Your task to perform on an android device: turn off improve location accuracy Image 0: 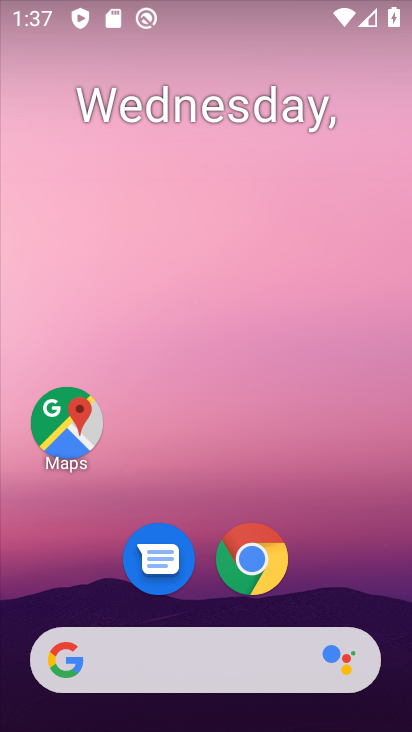
Step 0: drag from (362, 443) to (367, 0)
Your task to perform on an android device: turn off improve location accuracy Image 1: 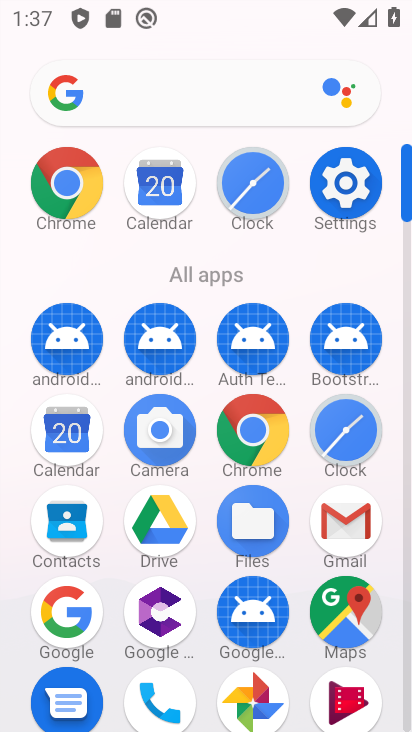
Step 1: click (318, 625)
Your task to perform on an android device: turn off improve location accuracy Image 2: 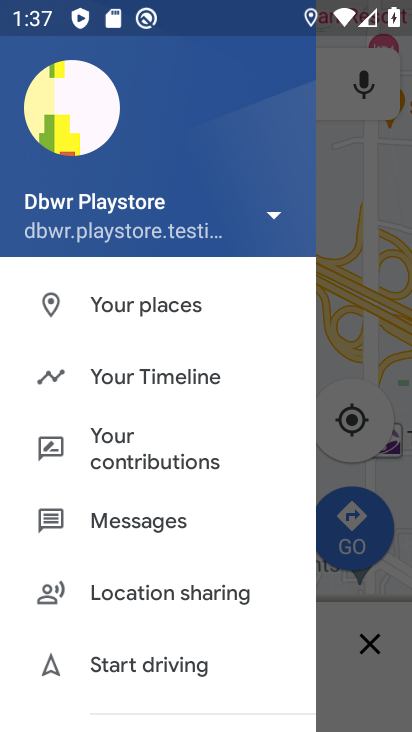
Step 2: press home button
Your task to perform on an android device: turn off improve location accuracy Image 3: 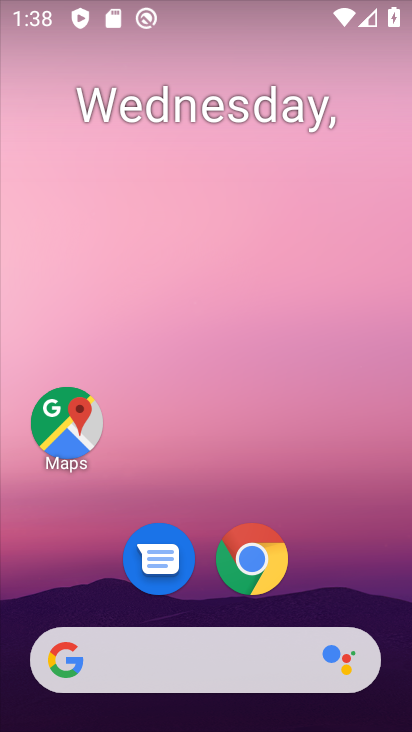
Step 3: drag from (371, 171) to (327, 5)
Your task to perform on an android device: turn off improve location accuracy Image 4: 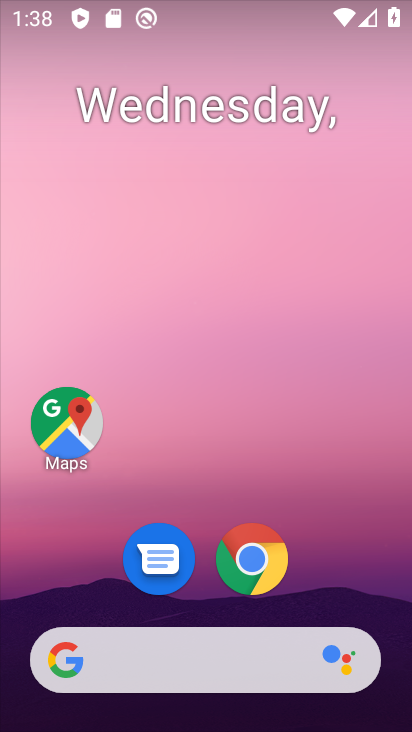
Step 4: drag from (318, 559) to (316, 32)
Your task to perform on an android device: turn off improve location accuracy Image 5: 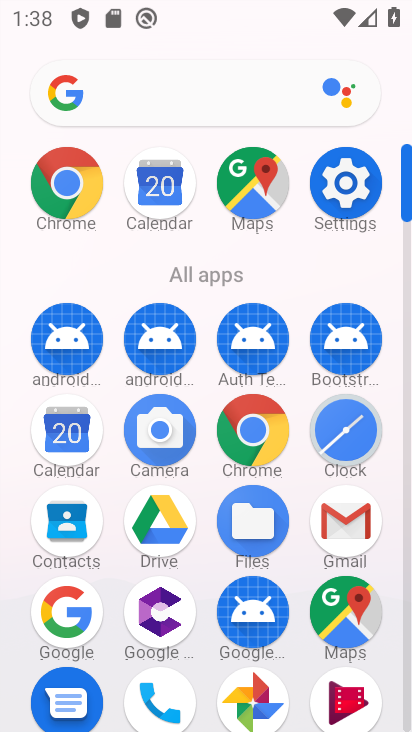
Step 5: click (346, 175)
Your task to perform on an android device: turn off improve location accuracy Image 6: 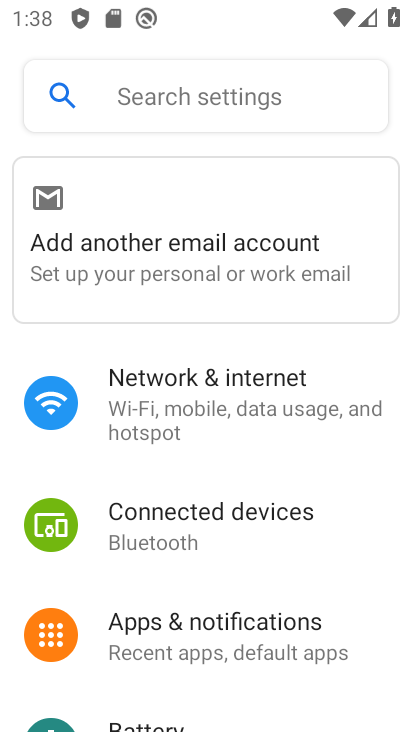
Step 6: drag from (176, 517) to (182, 211)
Your task to perform on an android device: turn off improve location accuracy Image 7: 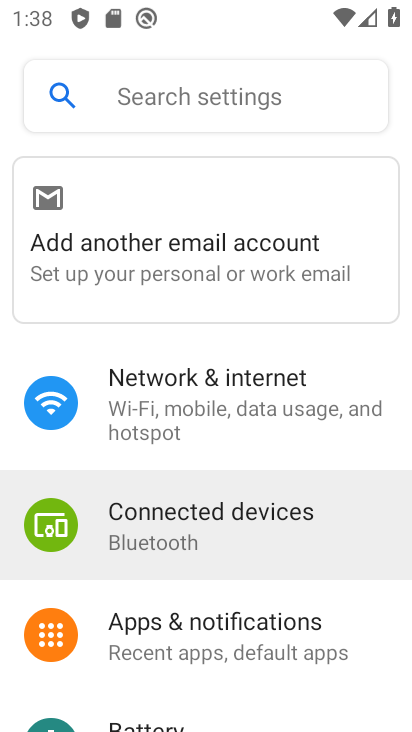
Step 7: drag from (250, 640) to (248, 271)
Your task to perform on an android device: turn off improve location accuracy Image 8: 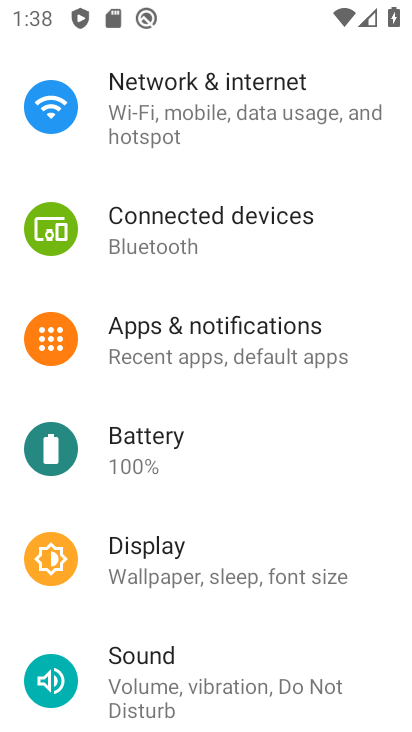
Step 8: drag from (244, 319) to (272, 1)
Your task to perform on an android device: turn off improve location accuracy Image 9: 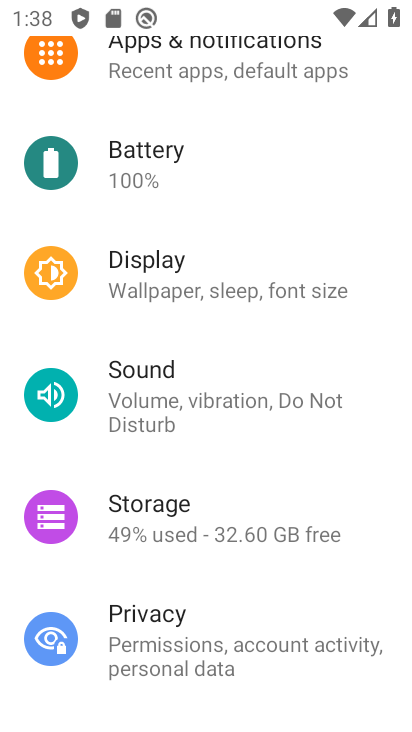
Step 9: drag from (247, 232) to (237, 68)
Your task to perform on an android device: turn off improve location accuracy Image 10: 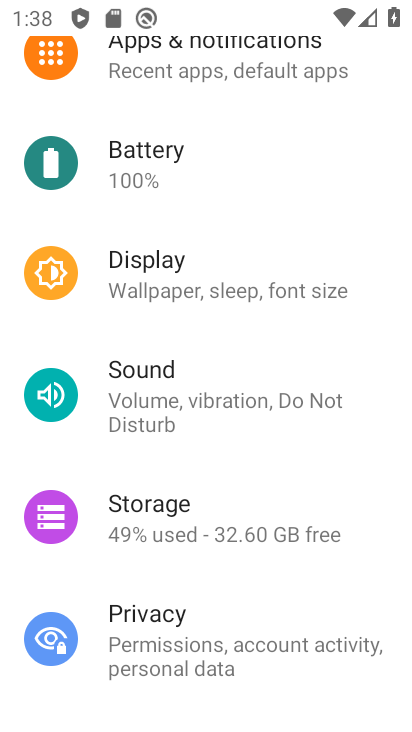
Step 10: drag from (200, 599) to (195, 63)
Your task to perform on an android device: turn off improve location accuracy Image 11: 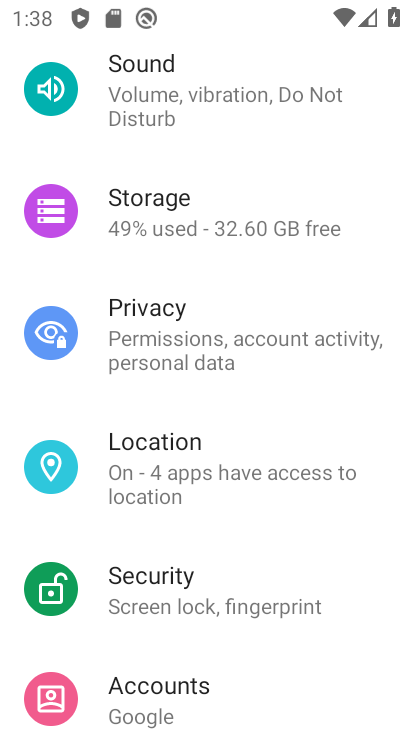
Step 11: drag from (254, 667) to (233, 185)
Your task to perform on an android device: turn off improve location accuracy Image 12: 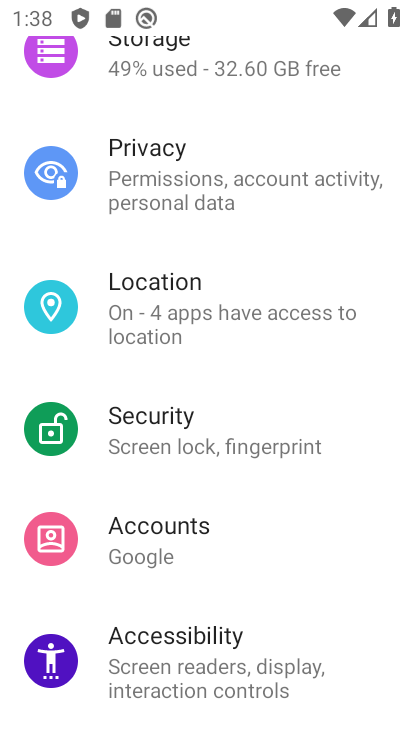
Step 12: click (263, 265)
Your task to perform on an android device: turn off improve location accuracy Image 13: 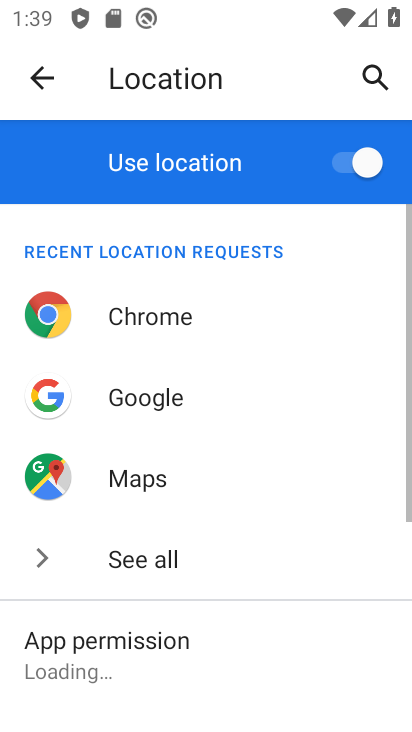
Step 13: drag from (216, 648) to (233, 276)
Your task to perform on an android device: turn off improve location accuracy Image 14: 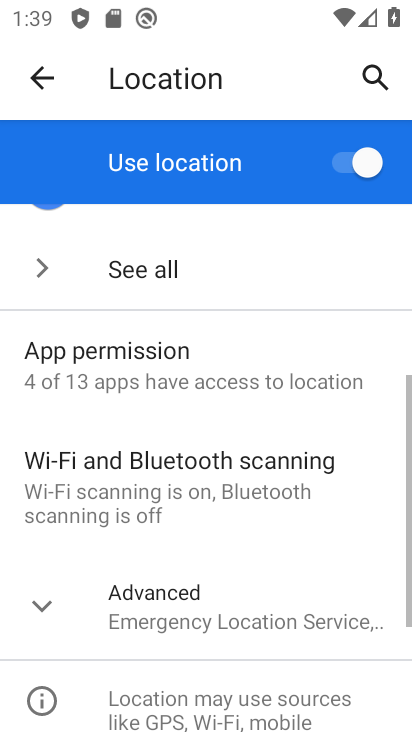
Step 14: click (205, 613)
Your task to perform on an android device: turn off improve location accuracy Image 15: 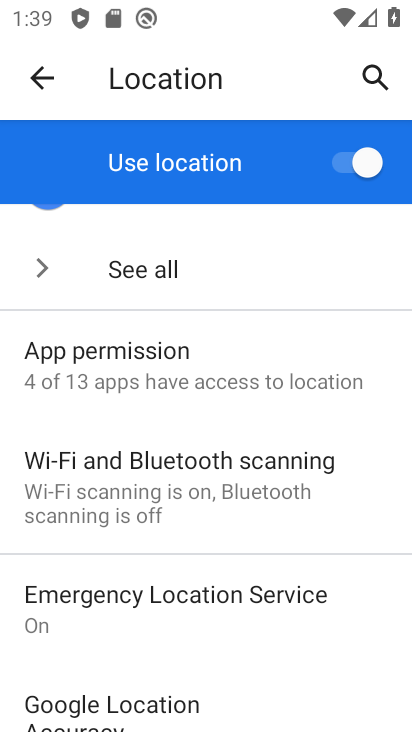
Step 15: drag from (202, 688) to (183, 191)
Your task to perform on an android device: turn off improve location accuracy Image 16: 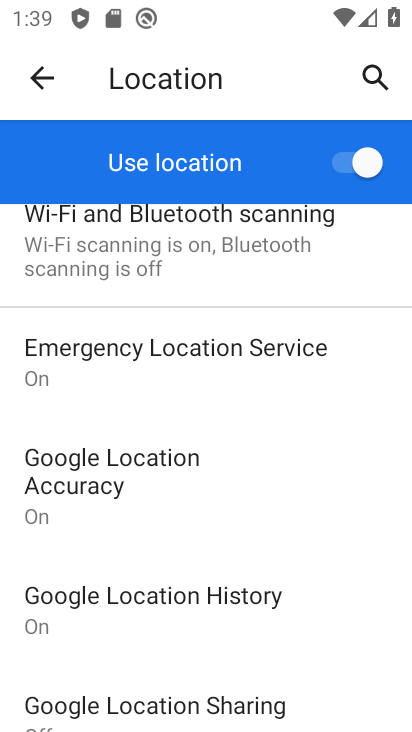
Step 16: click (177, 494)
Your task to perform on an android device: turn off improve location accuracy Image 17: 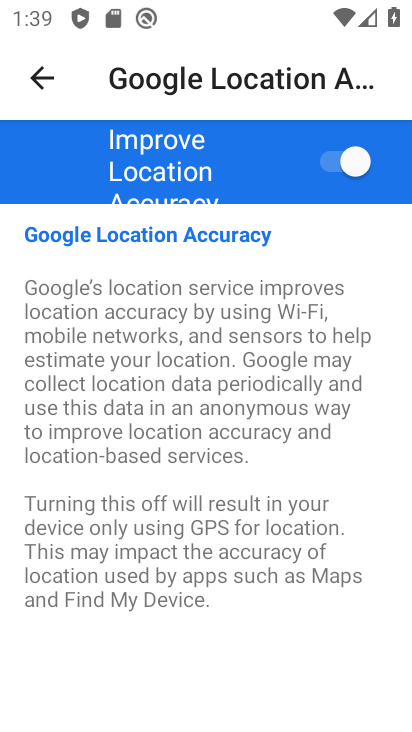
Step 17: click (362, 157)
Your task to perform on an android device: turn off improve location accuracy Image 18: 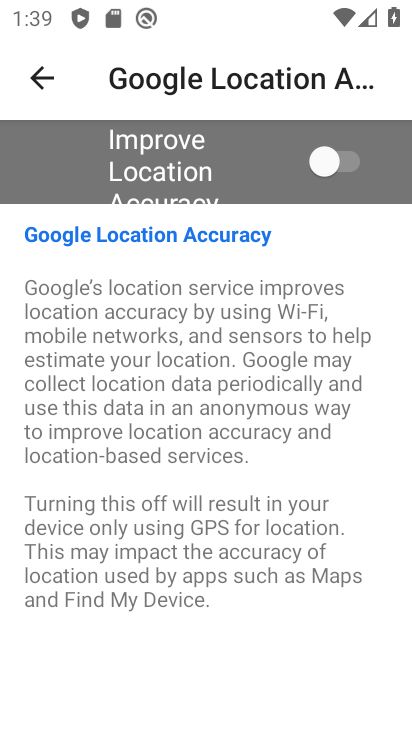
Step 18: task complete